Your task to perform on an android device: Open network settings Image 0: 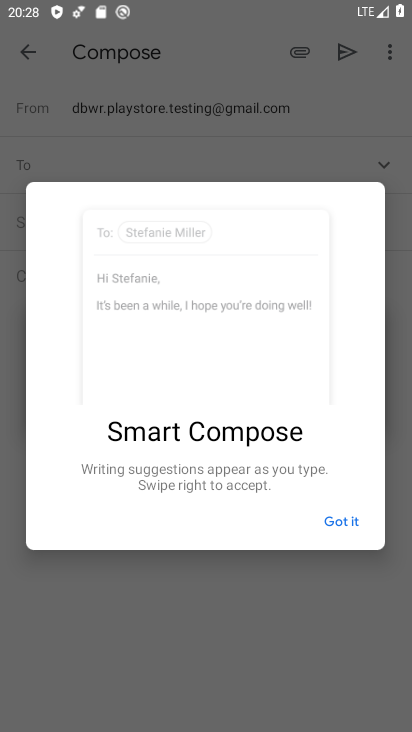
Step 0: press home button
Your task to perform on an android device: Open network settings Image 1: 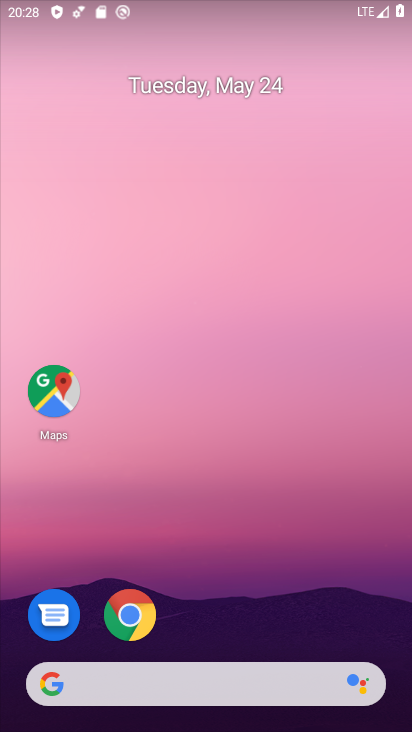
Step 1: drag from (254, 581) to (240, 457)
Your task to perform on an android device: Open network settings Image 2: 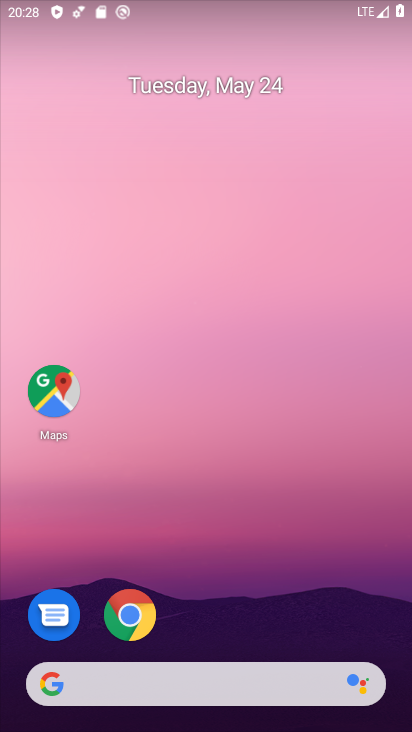
Step 2: drag from (225, 608) to (225, 236)
Your task to perform on an android device: Open network settings Image 3: 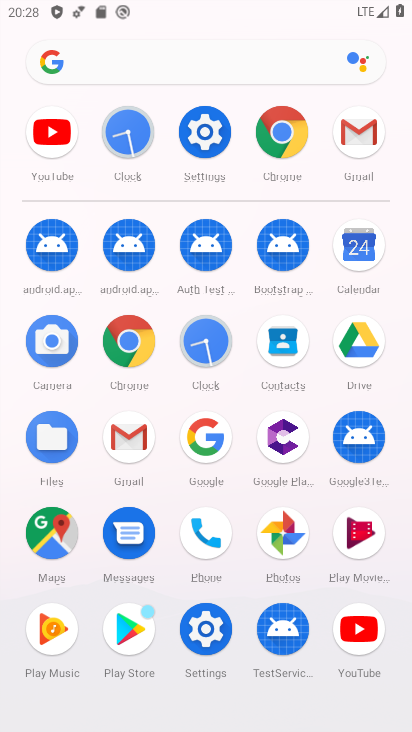
Step 3: click (204, 119)
Your task to perform on an android device: Open network settings Image 4: 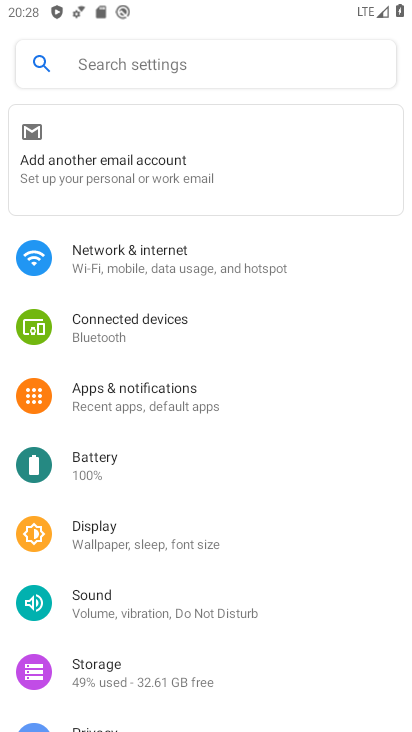
Step 4: click (159, 261)
Your task to perform on an android device: Open network settings Image 5: 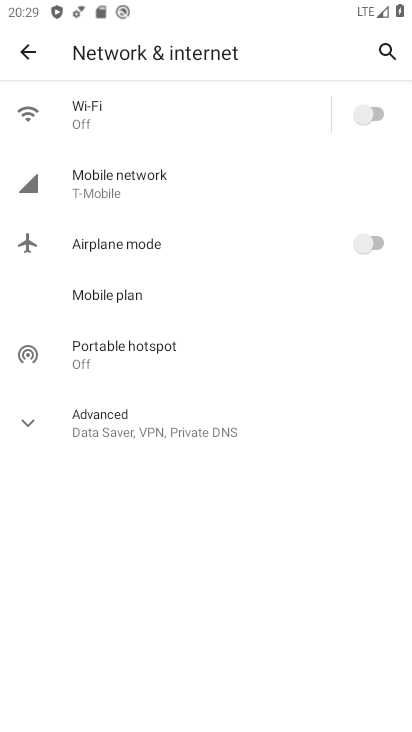
Step 5: task complete